Your task to perform on an android device: Check the news Image 0: 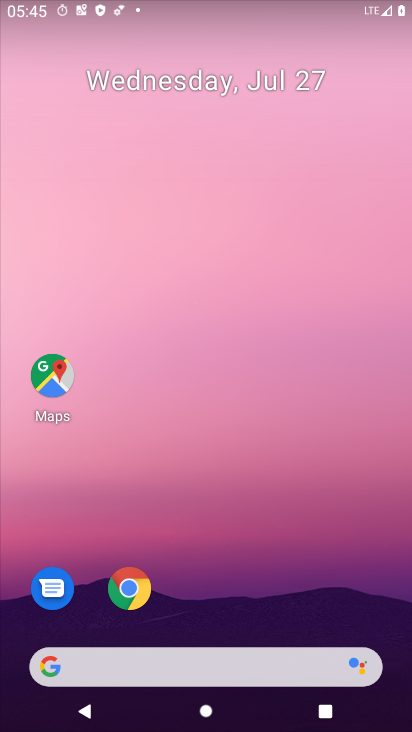
Step 0: drag from (306, 662) to (409, 402)
Your task to perform on an android device: Check the news Image 1: 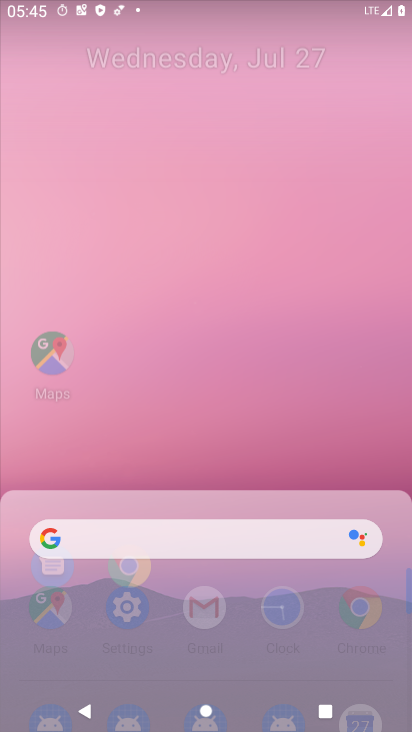
Step 1: click (140, 373)
Your task to perform on an android device: Check the news Image 2: 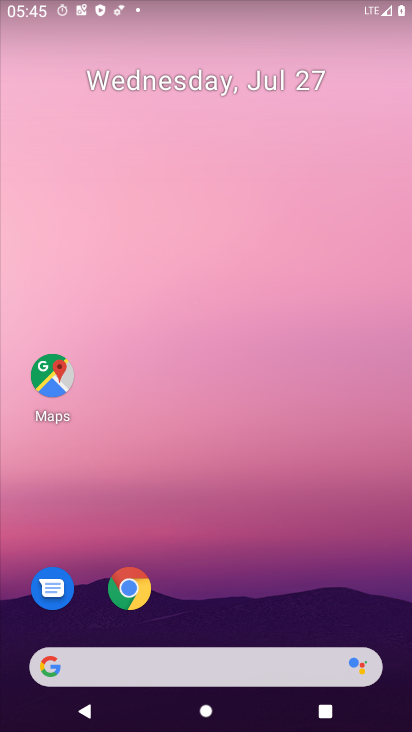
Step 2: drag from (249, 590) to (268, 93)
Your task to perform on an android device: Check the news Image 3: 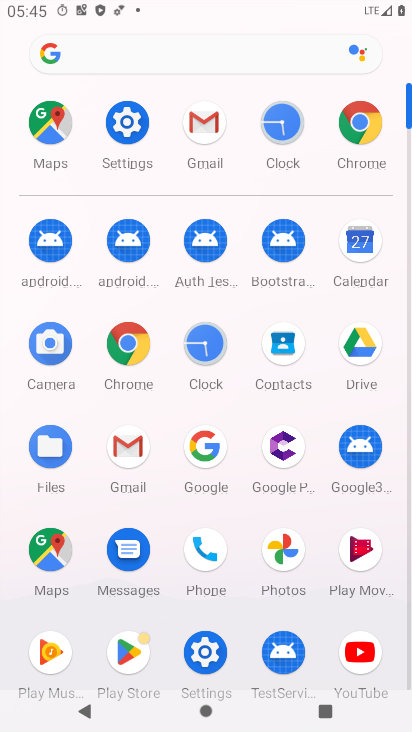
Step 3: click (126, 337)
Your task to perform on an android device: Check the news Image 4: 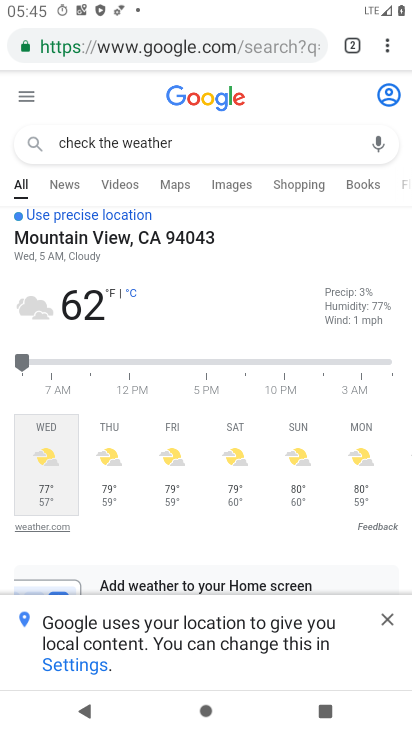
Step 4: click (207, 50)
Your task to perform on an android device: Check the news Image 5: 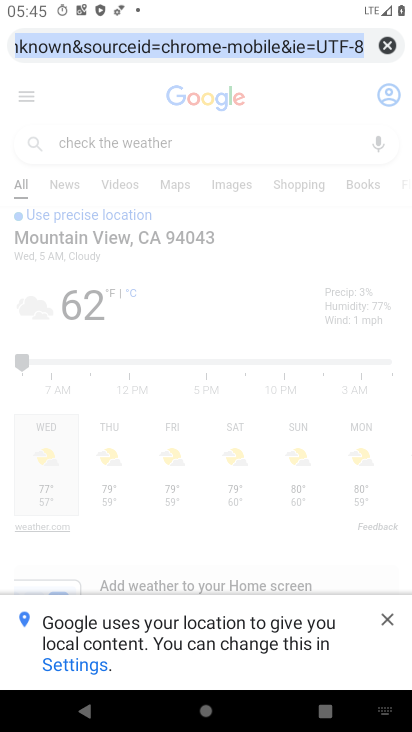
Step 5: type "check the news"
Your task to perform on an android device: Check the news Image 6: 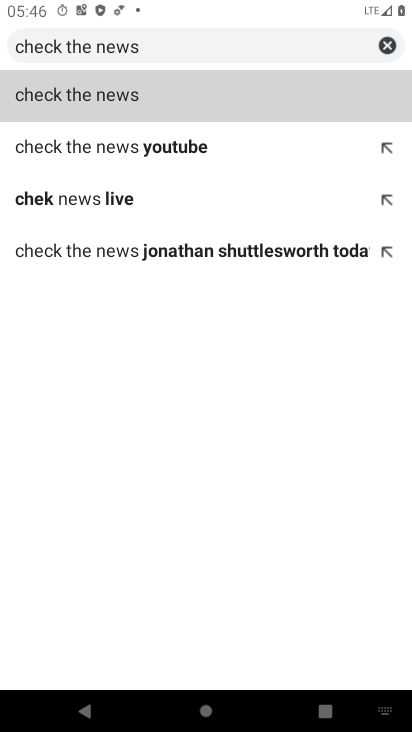
Step 6: click (256, 101)
Your task to perform on an android device: Check the news Image 7: 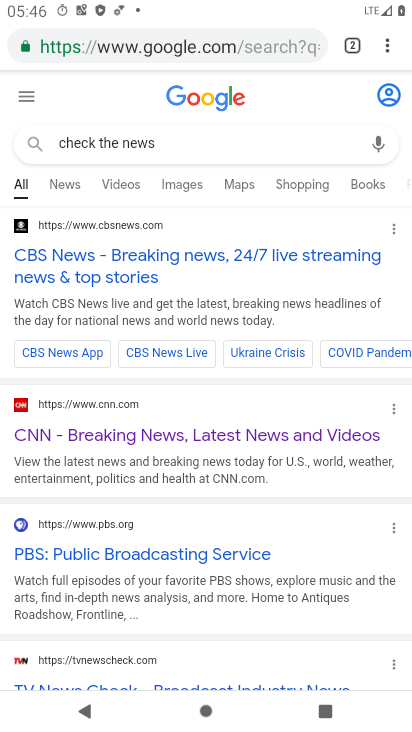
Step 7: task complete